Your task to perform on an android device: turn on javascript in the chrome app Image 0: 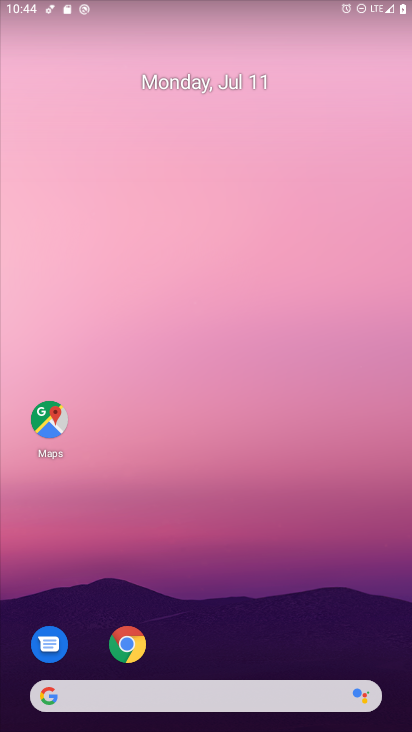
Step 0: click (131, 646)
Your task to perform on an android device: turn on javascript in the chrome app Image 1: 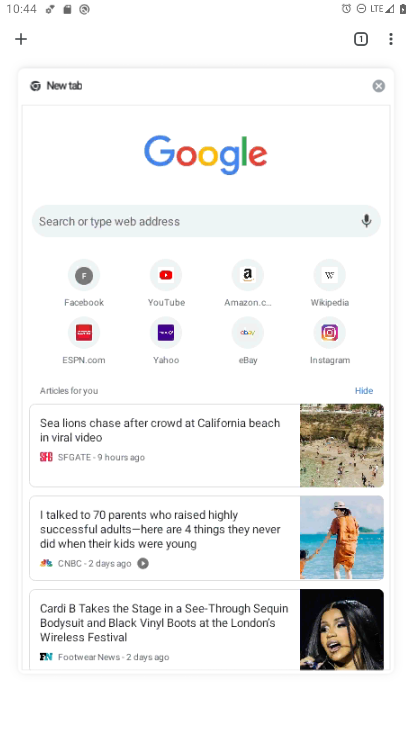
Step 1: click (392, 33)
Your task to perform on an android device: turn on javascript in the chrome app Image 2: 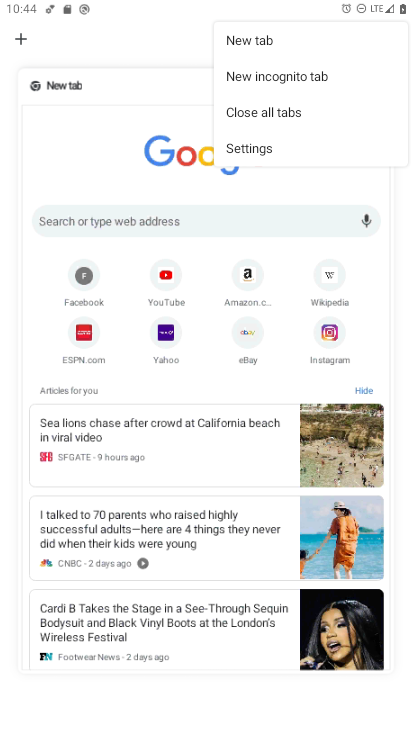
Step 2: click (271, 143)
Your task to perform on an android device: turn on javascript in the chrome app Image 3: 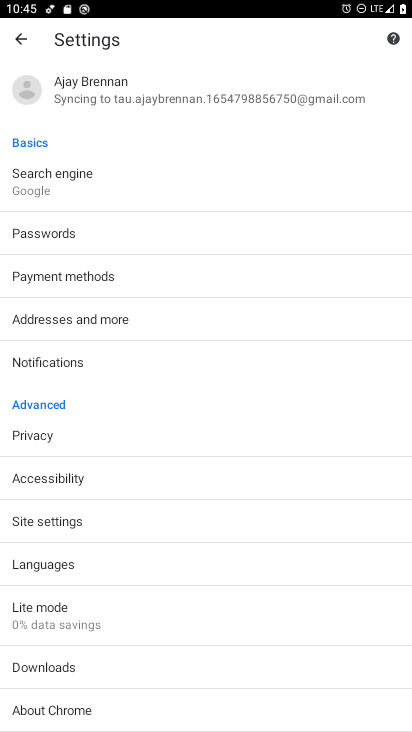
Step 3: click (63, 523)
Your task to perform on an android device: turn on javascript in the chrome app Image 4: 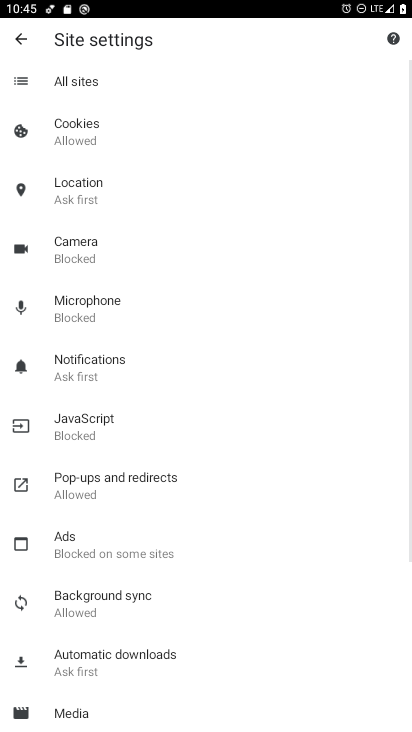
Step 4: click (82, 412)
Your task to perform on an android device: turn on javascript in the chrome app Image 5: 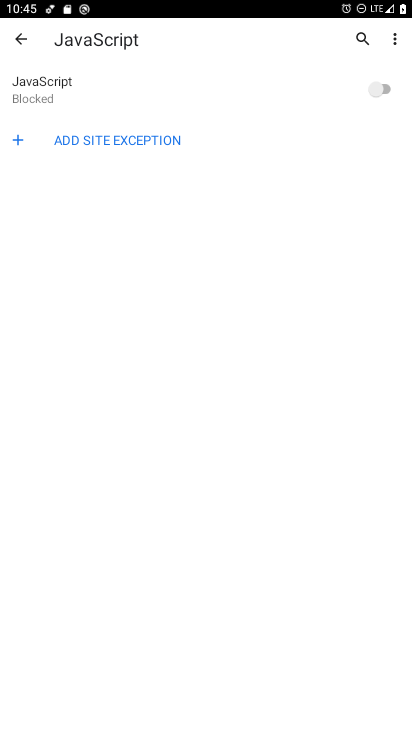
Step 5: click (392, 86)
Your task to perform on an android device: turn on javascript in the chrome app Image 6: 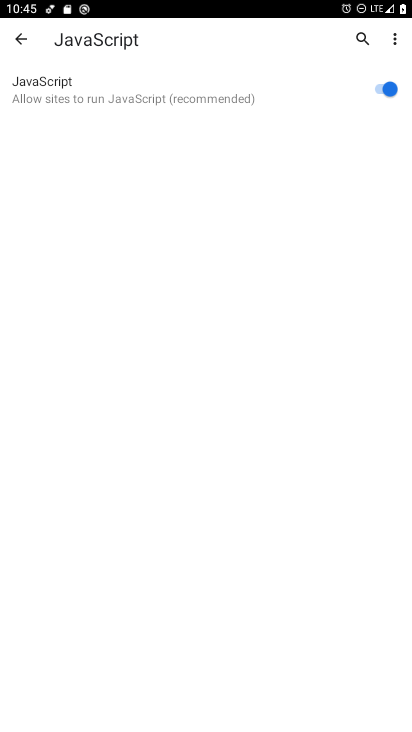
Step 6: task complete